Your task to perform on an android device: check battery use Image 0: 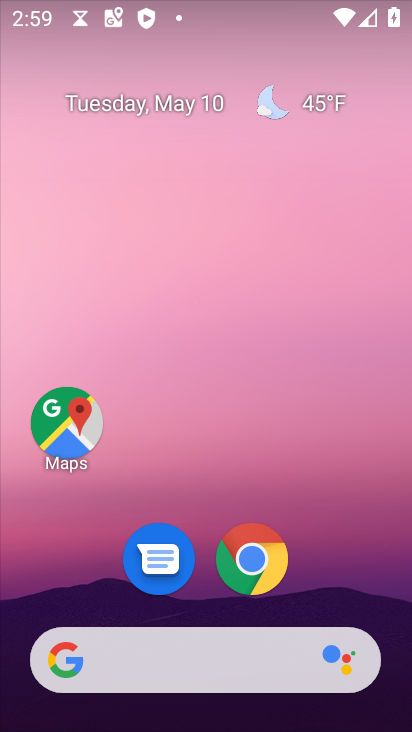
Step 0: drag from (355, 558) to (158, 10)
Your task to perform on an android device: check battery use Image 1: 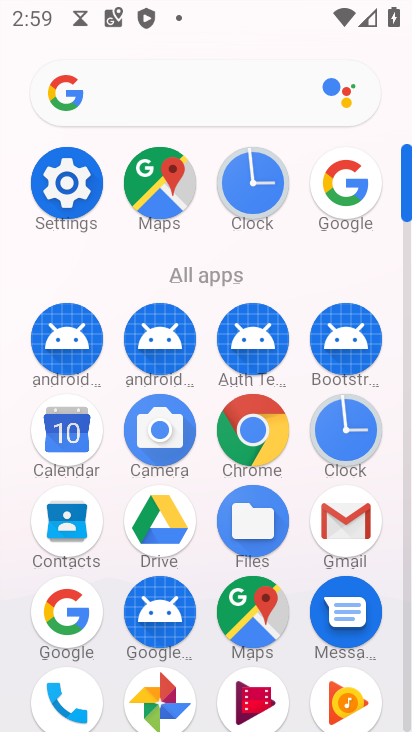
Step 1: click (65, 177)
Your task to perform on an android device: check battery use Image 2: 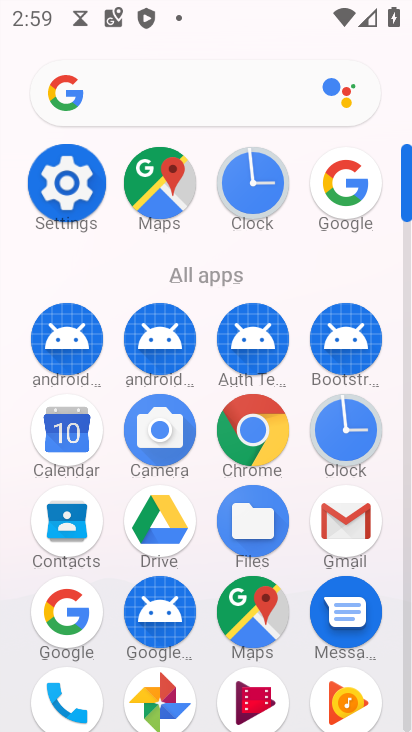
Step 2: click (65, 177)
Your task to perform on an android device: check battery use Image 3: 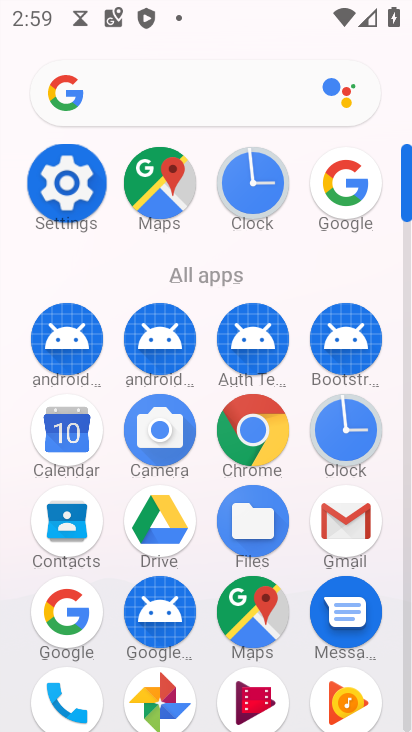
Step 3: click (65, 184)
Your task to perform on an android device: check battery use Image 4: 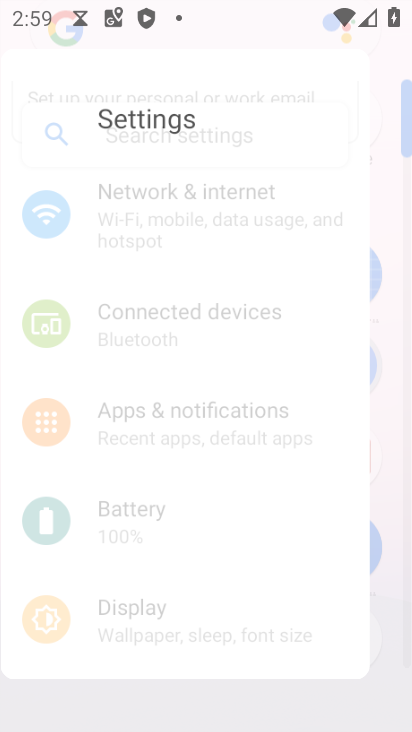
Step 4: click (68, 195)
Your task to perform on an android device: check battery use Image 5: 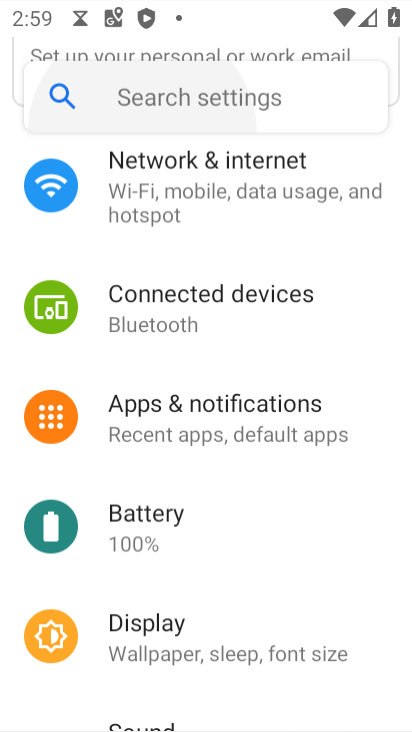
Step 5: click (68, 201)
Your task to perform on an android device: check battery use Image 6: 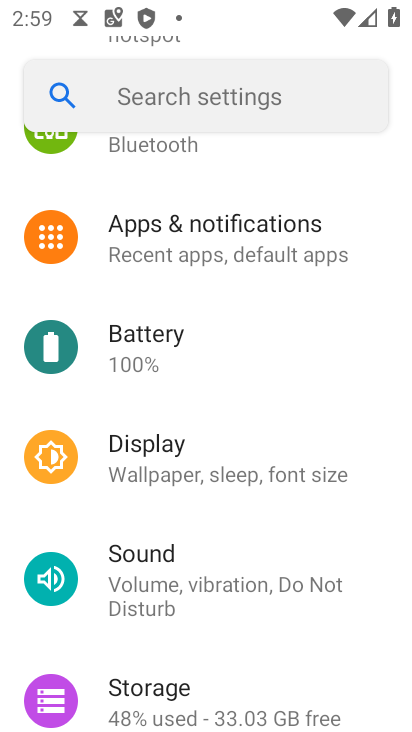
Step 6: click (71, 202)
Your task to perform on an android device: check battery use Image 7: 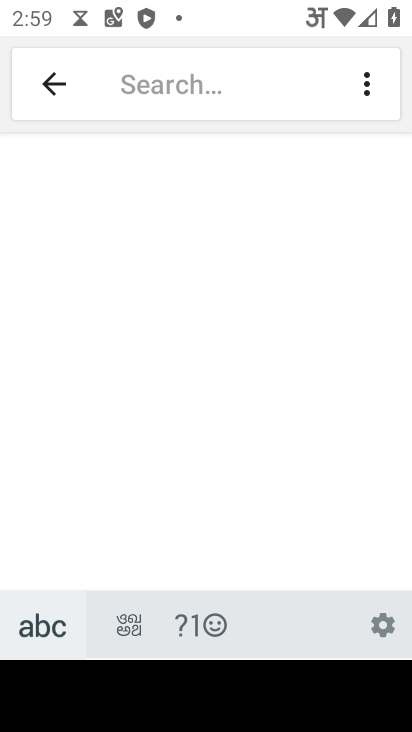
Step 7: press back button
Your task to perform on an android device: check battery use Image 8: 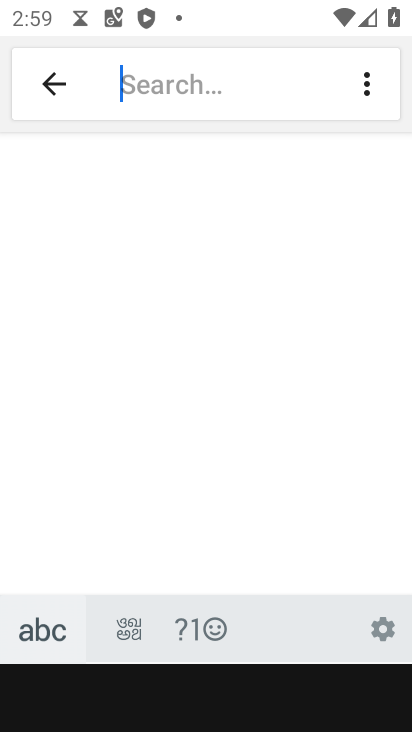
Step 8: press back button
Your task to perform on an android device: check battery use Image 9: 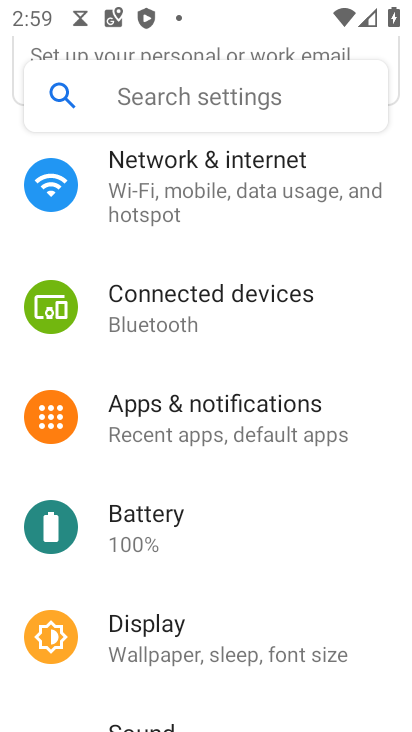
Step 9: click (139, 535)
Your task to perform on an android device: check battery use Image 10: 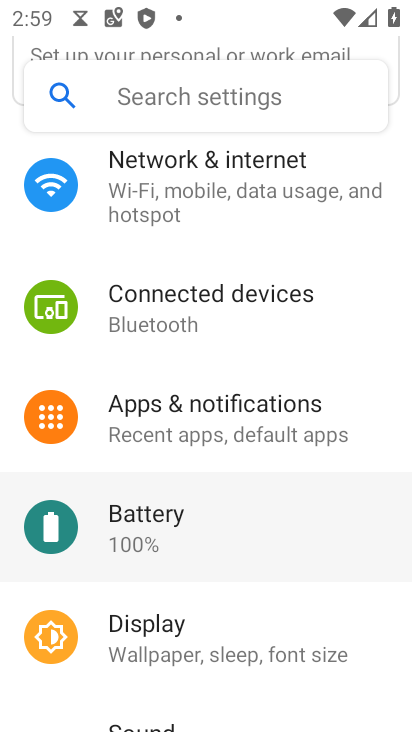
Step 10: click (139, 535)
Your task to perform on an android device: check battery use Image 11: 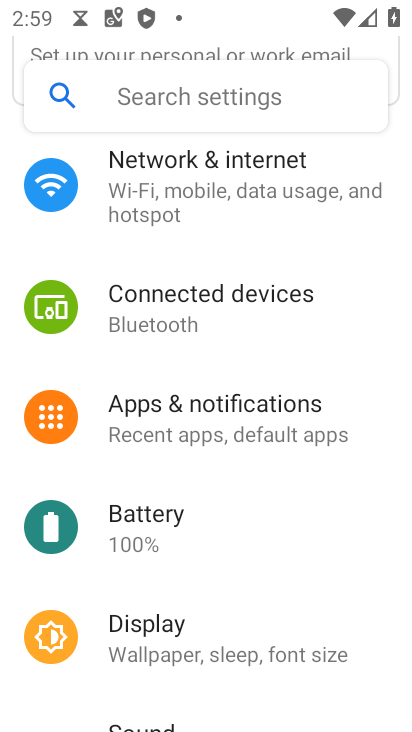
Step 11: click (139, 535)
Your task to perform on an android device: check battery use Image 12: 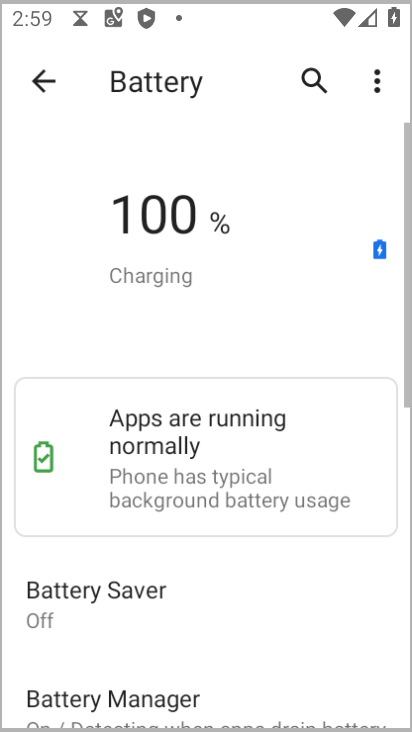
Step 12: click (141, 535)
Your task to perform on an android device: check battery use Image 13: 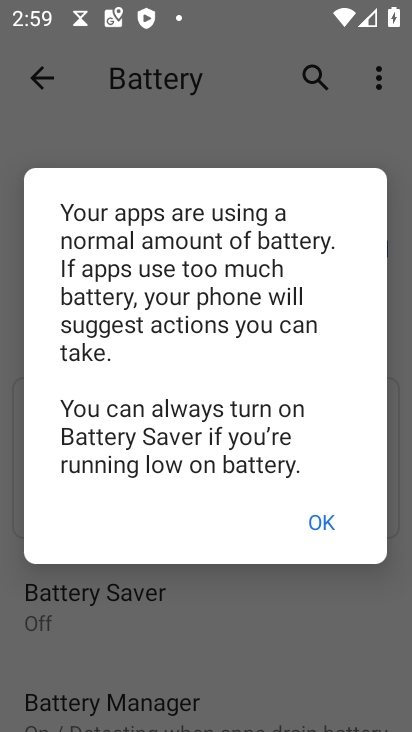
Step 13: click (323, 524)
Your task to perform on an android device: check battery use Image 14: 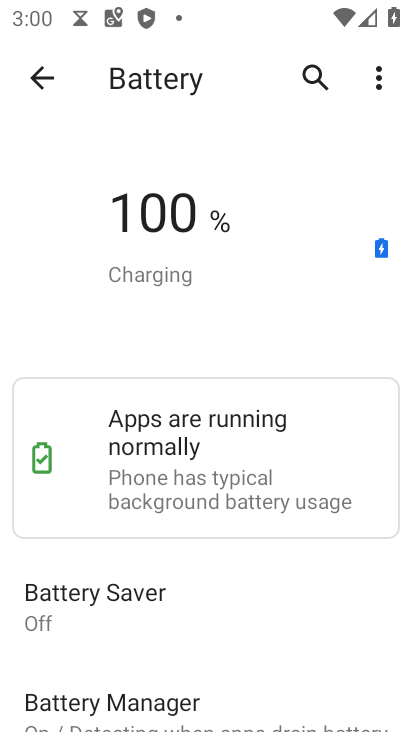
Step 14: click (34, 73)
Your task to perform on an android device: check battery use Image 15: 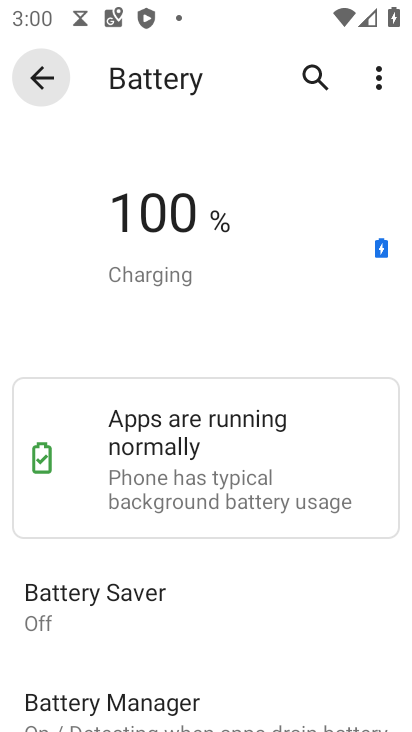
Step 15: click (34, 72)
Your task to perform on an android device: check battery use Image 16: 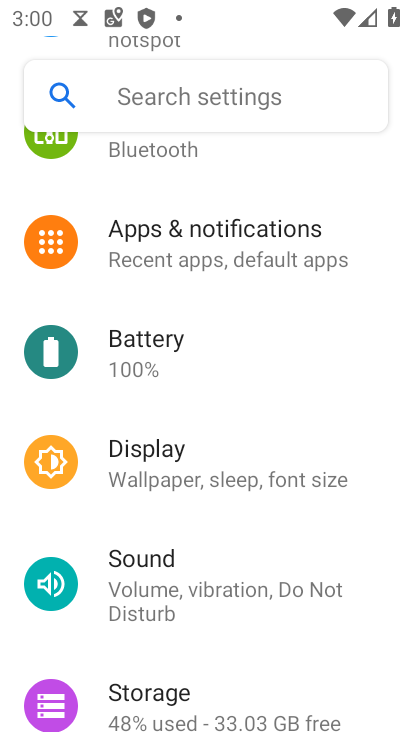
Step 16: click (35, 70)
Your task to perform on an android device: check battery use Image 17: 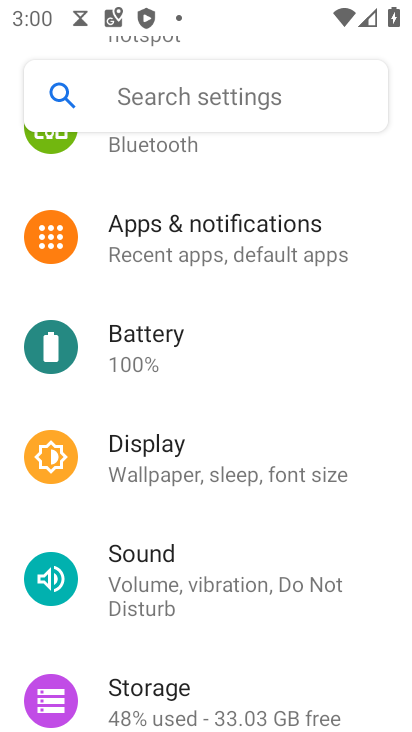
Step 17: click (35, 70)
Your task to perform on an android device: check battery use Image 18: 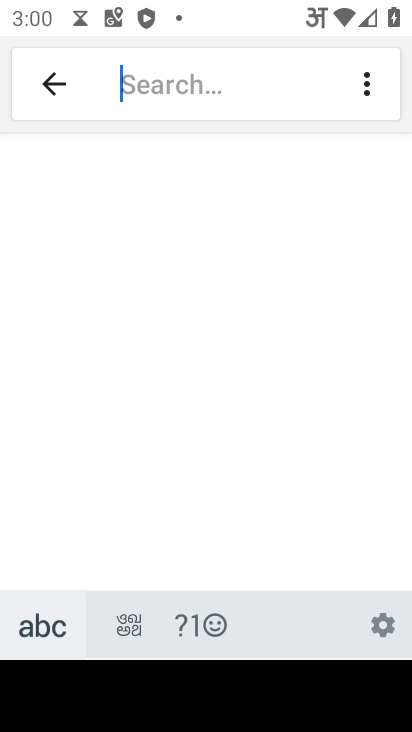
Step 18: task complete